Your task to perform on an android device: Open Wikipedia Image 0: 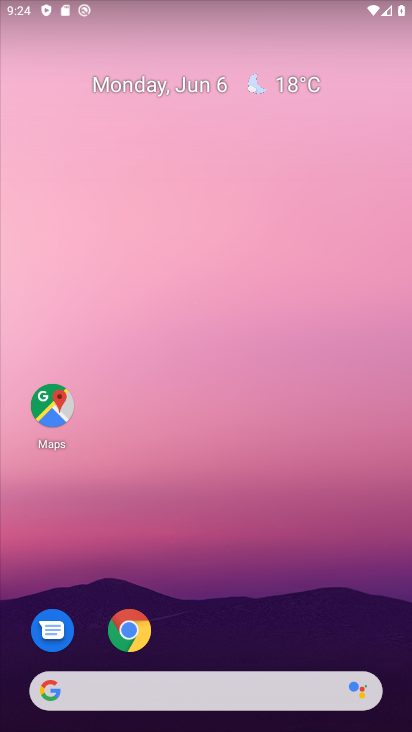
Step 0: click (121, 633)
Your task to perform on an android device: Open Wikipedia Image 1: 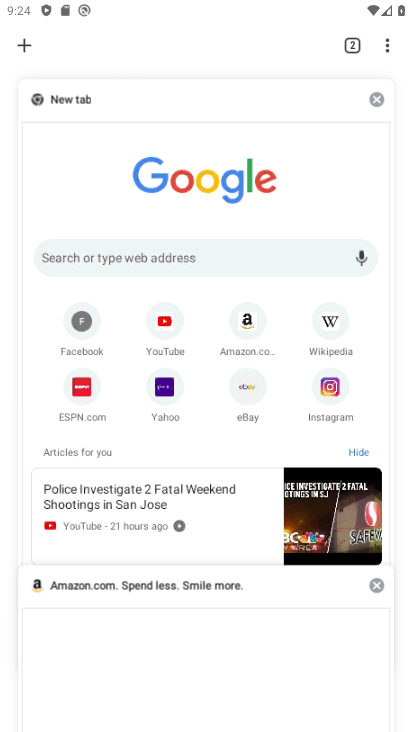
Step 1: click (319, 327)
Your task to perform on an android device: Open Wikipedia Image 2: 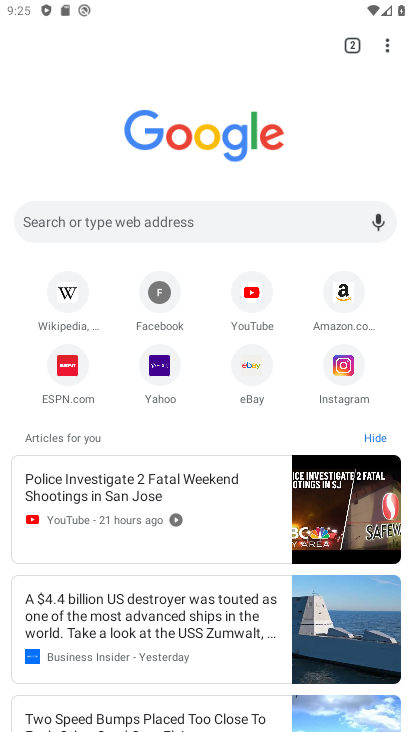
Step 2: click (69, 308)
Your task to perform on an android device: Open Wikipedia Image 3: 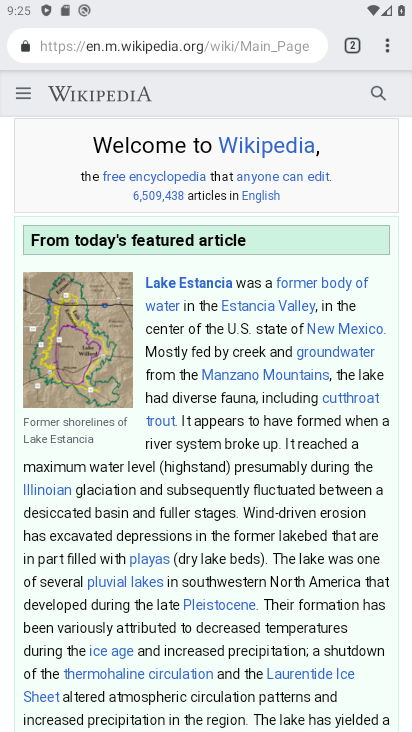
Step 3: task complete